Your task to perform on an android device: Open Wikipedia Image 0: 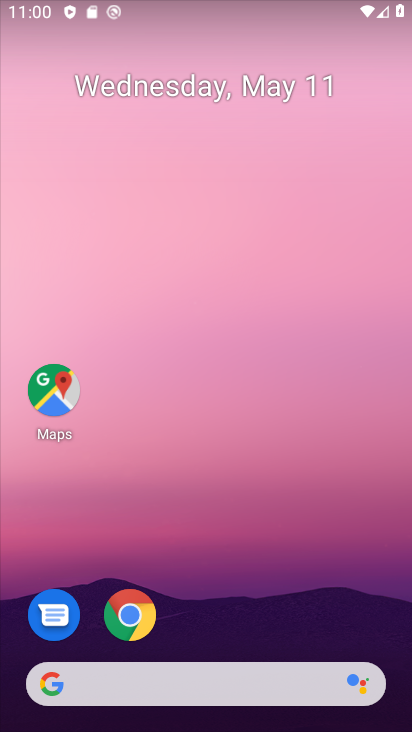
Step 0: click (140, 626)
Your task to perform on an android device: Open Wikipedia Image 1: 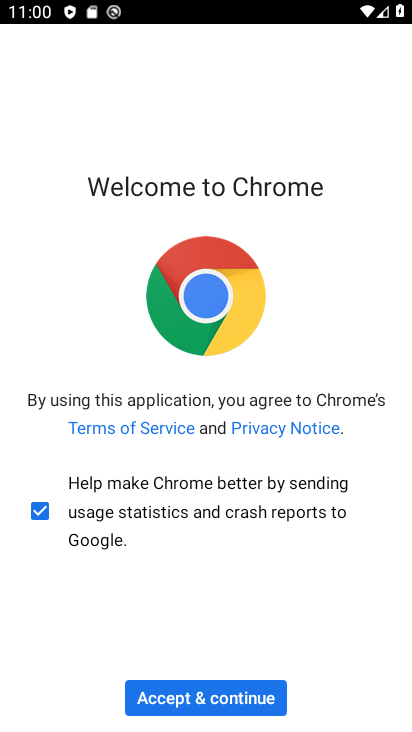
Step 1: click (221, 690)
Your task to perform on an android device: Open Wikipedia Image 2: 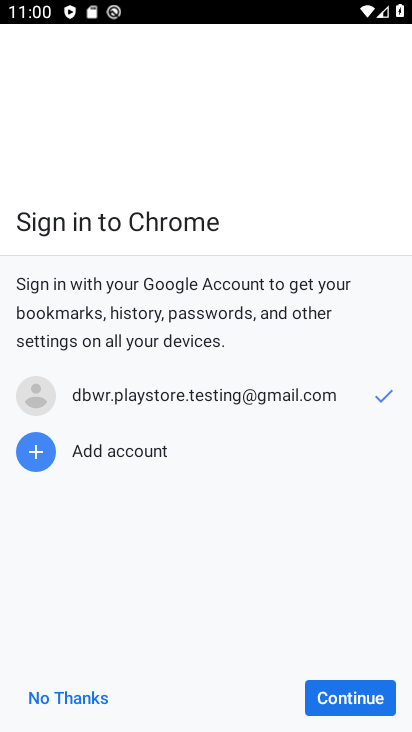
Step 2: click (350, 691)
Your task to perform on an android device: Open Wikipedia Image 3: 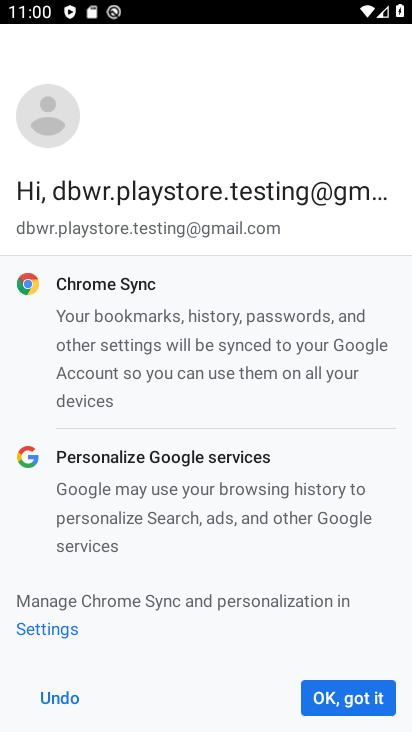
Step 3: click (347, 699)
Your task to perform on an android device: Open Wikipedia Image 4: 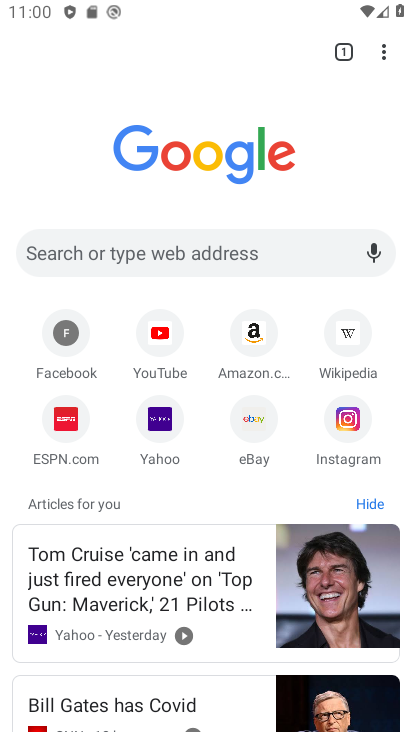
Step 4: click (341, 336)
Your task to perform on an android device: Open Wikipedia Image 5: 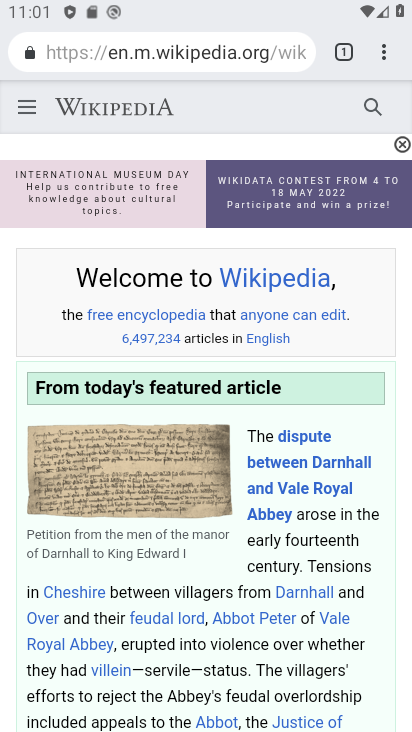
Step 5: task complete